Your task to perform on an android device: Check the weather Image 0: 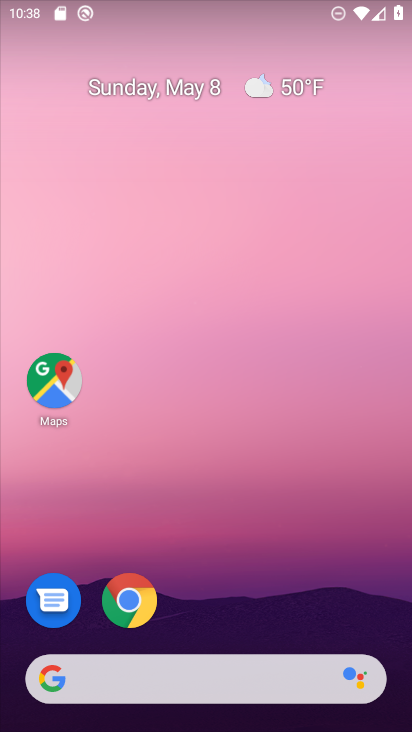
Step 0: click (257, 91)
Your task to perform on an android device: Check the weather Image 1: 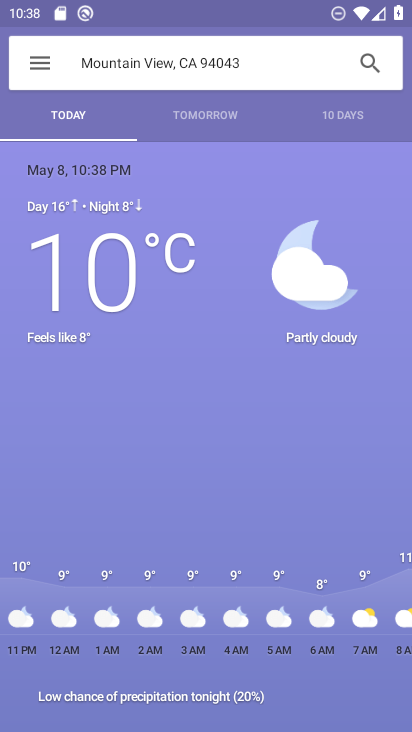
Step 1: task complete